Your task to perform on an android device: toggle sleep mode Image 0: 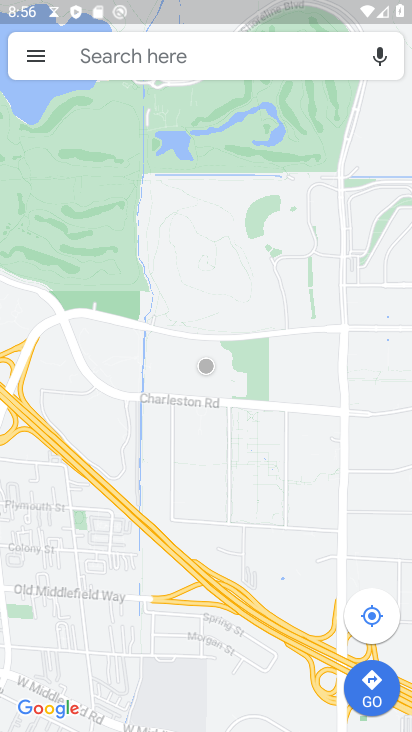
Step 0: press home button
Your task to perform on an android device: toggle sleep mode Image 1: 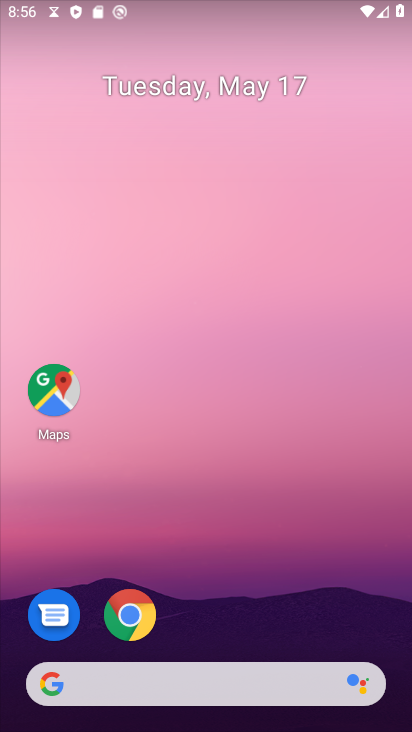
Step 1: drag from (222, 645) to (300, 169)
Your task to perform on an android device: toggle sleep mode Image 2: 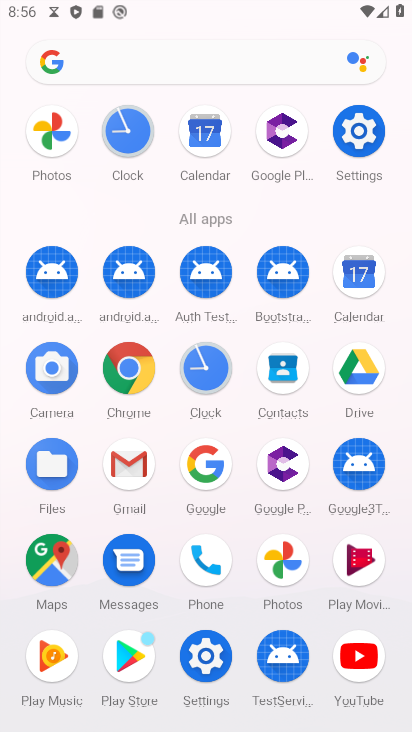
Step 2: drag from (172, 654) to (260, 383)
Your task to perform on an android device: toggle sleep mode Image 3: 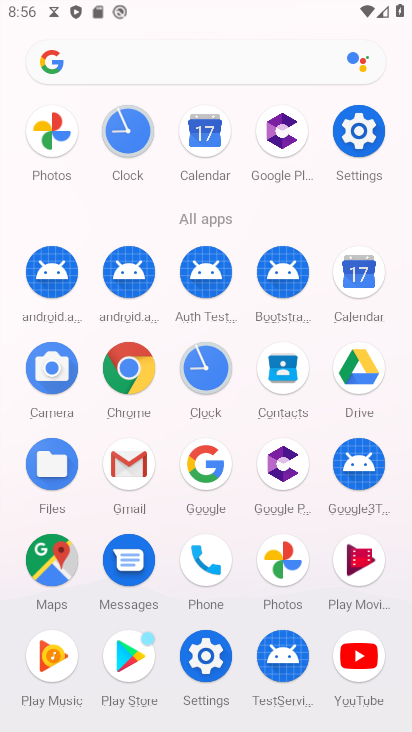
Step 3: click (205, 658)
Your task to perform on an android device: toggle sleep mode Image 4: 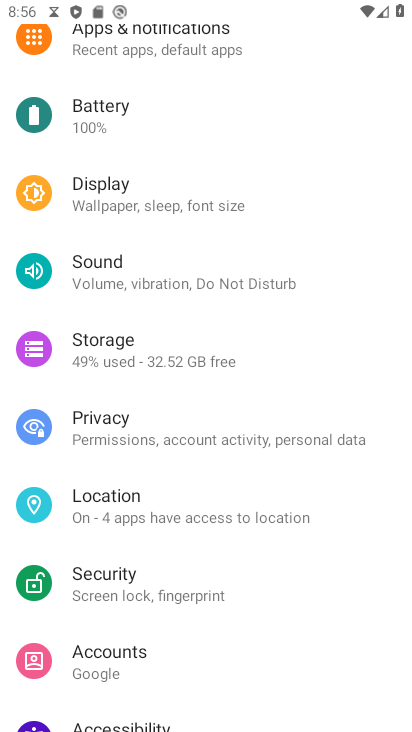
Step 4: click (133, 204)
Your task to perform on an android device: toggle sleep mode Image 5: 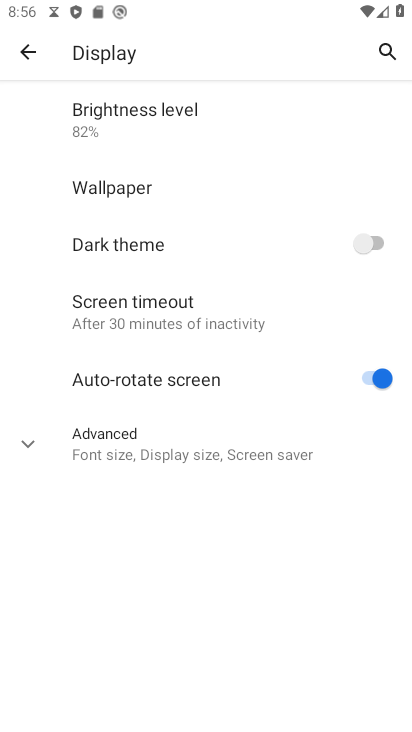
Step 5: click (177, 440)
Your task to perform on an android device: toggle sleep mode Image 6: 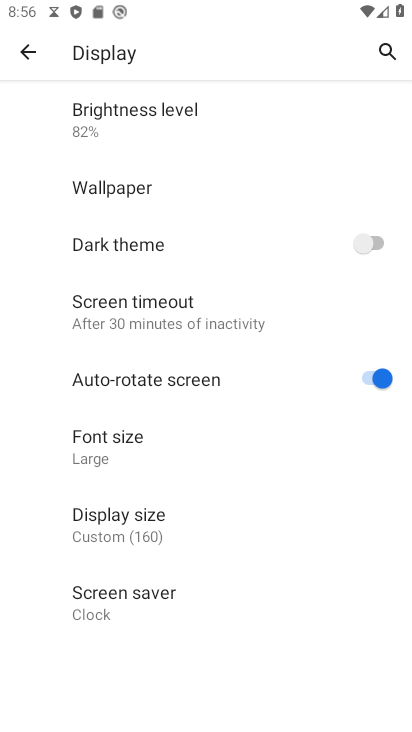
Step 6: task complete